Your task to perform on an android device: Go to settings Image 0: 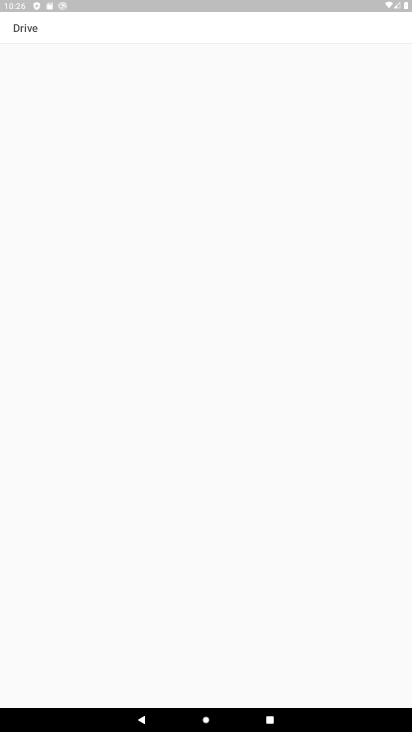
Step 0: press home button
Your task to perform on an android device: Go to settings Image 1: 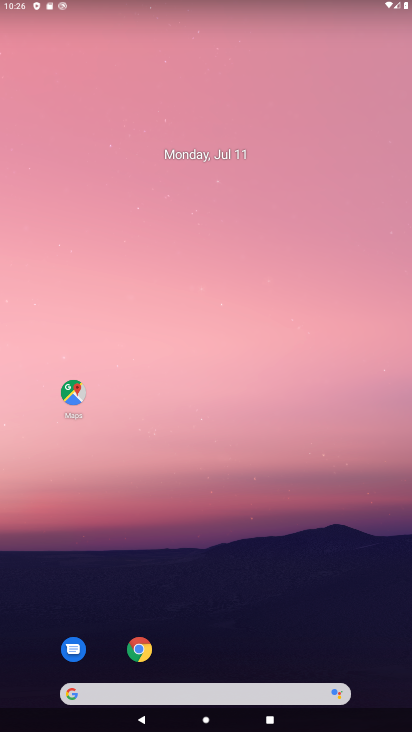
Step 1: drag from (230, 661) to (205, 86)
Your task to perform on an android device: Go to settings Image 2: 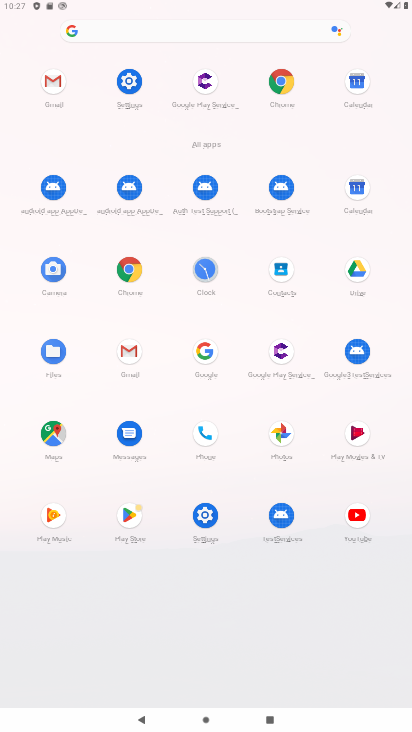
Step 2: click (130, 80)
Your task to perform on an android device: Go to settings Image 3: 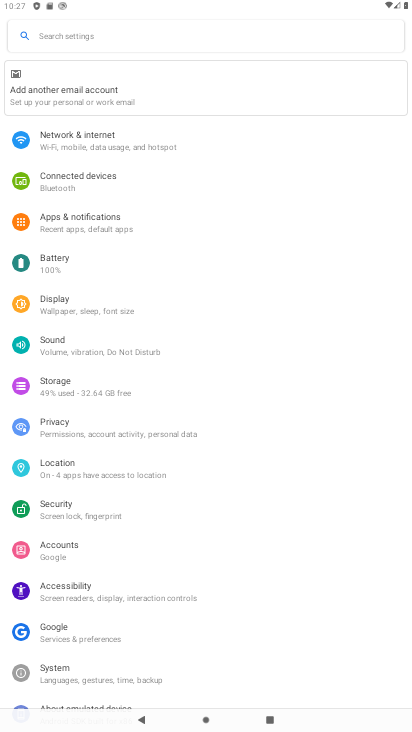
Step 3: task complete